Your task to perform on an android device: change the clock style Image 0: 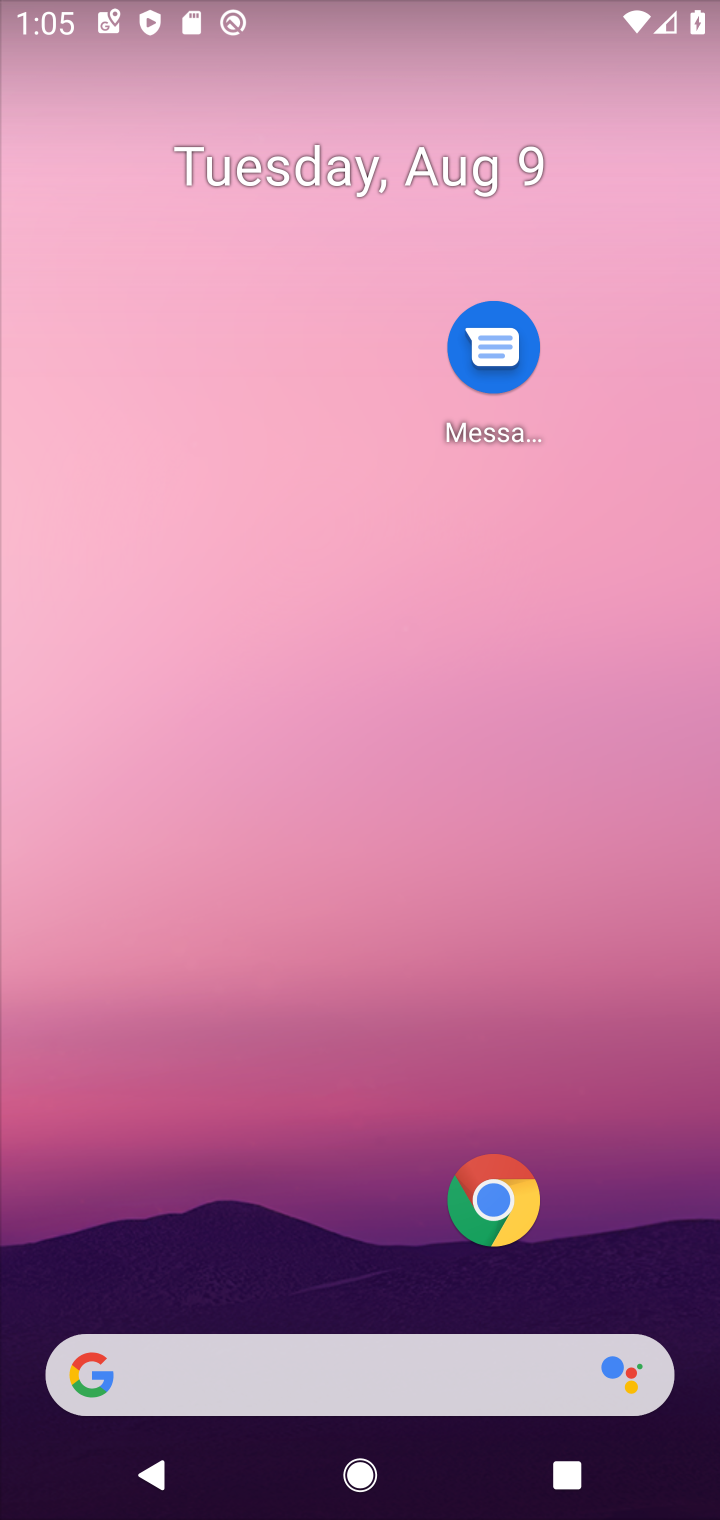
Step 0: drag from (255, 1225) to (315, 79)
Your task to perform on an android device: change the clock style Image 1: 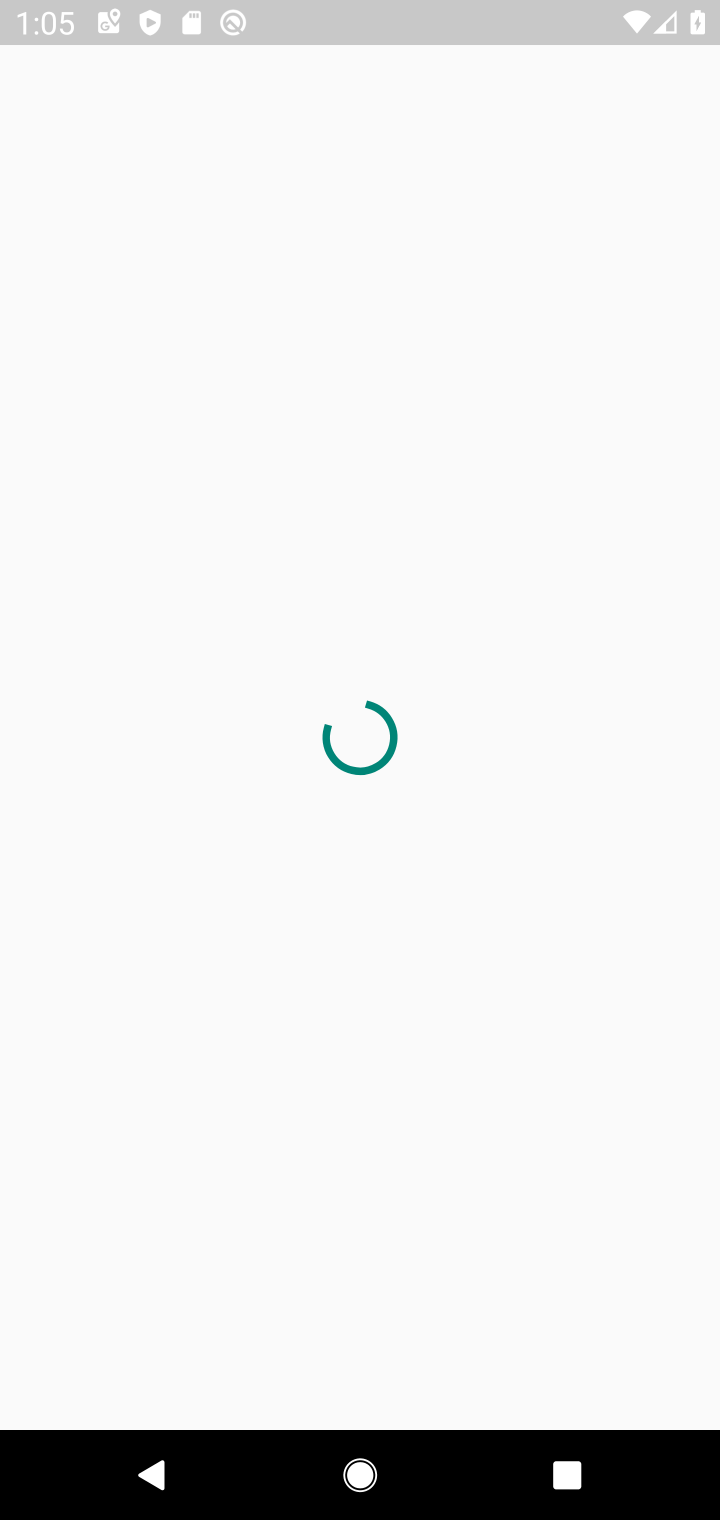
Step 1: press back button
Your task to perform on an android device: change the clock style Image 2: 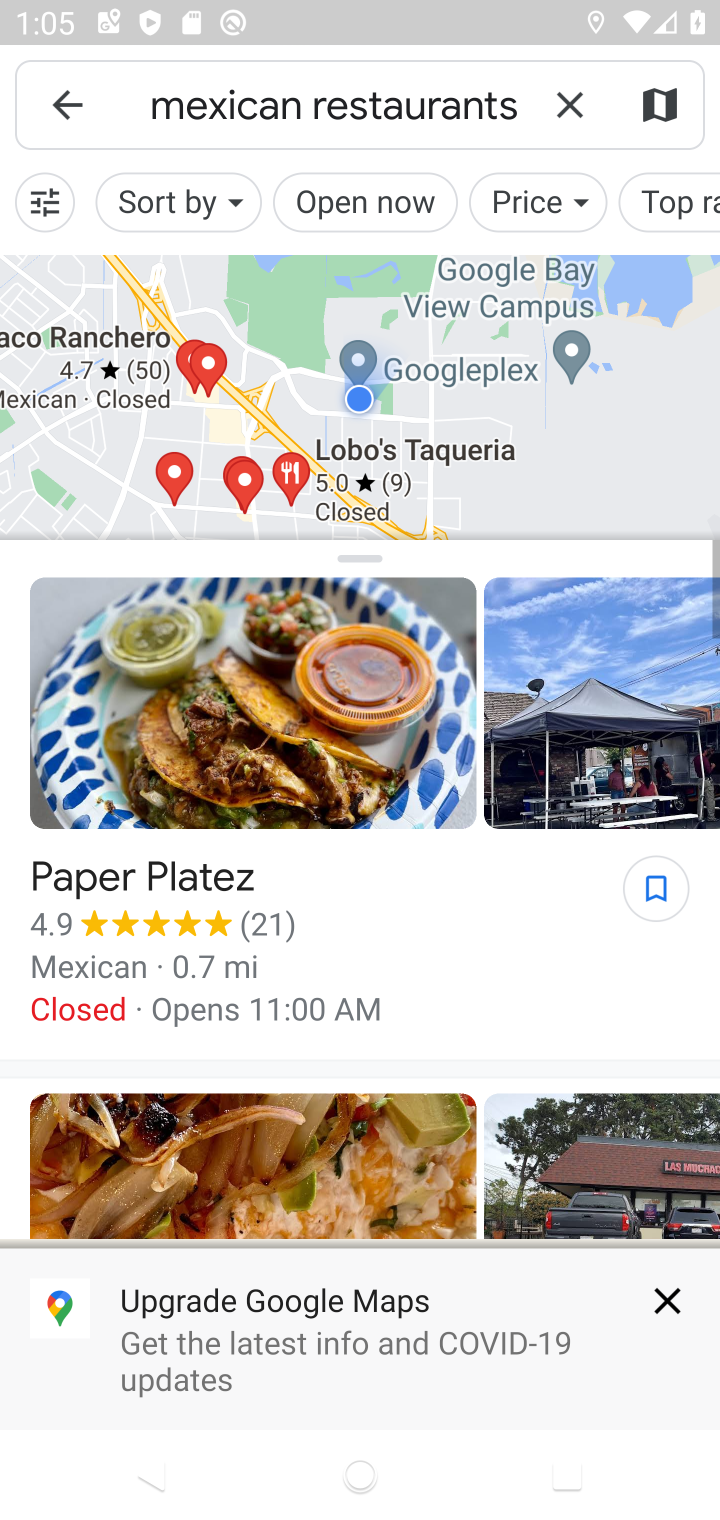
Step 2: press back button
Your task to perform on an android device: change the clock style Image 3: 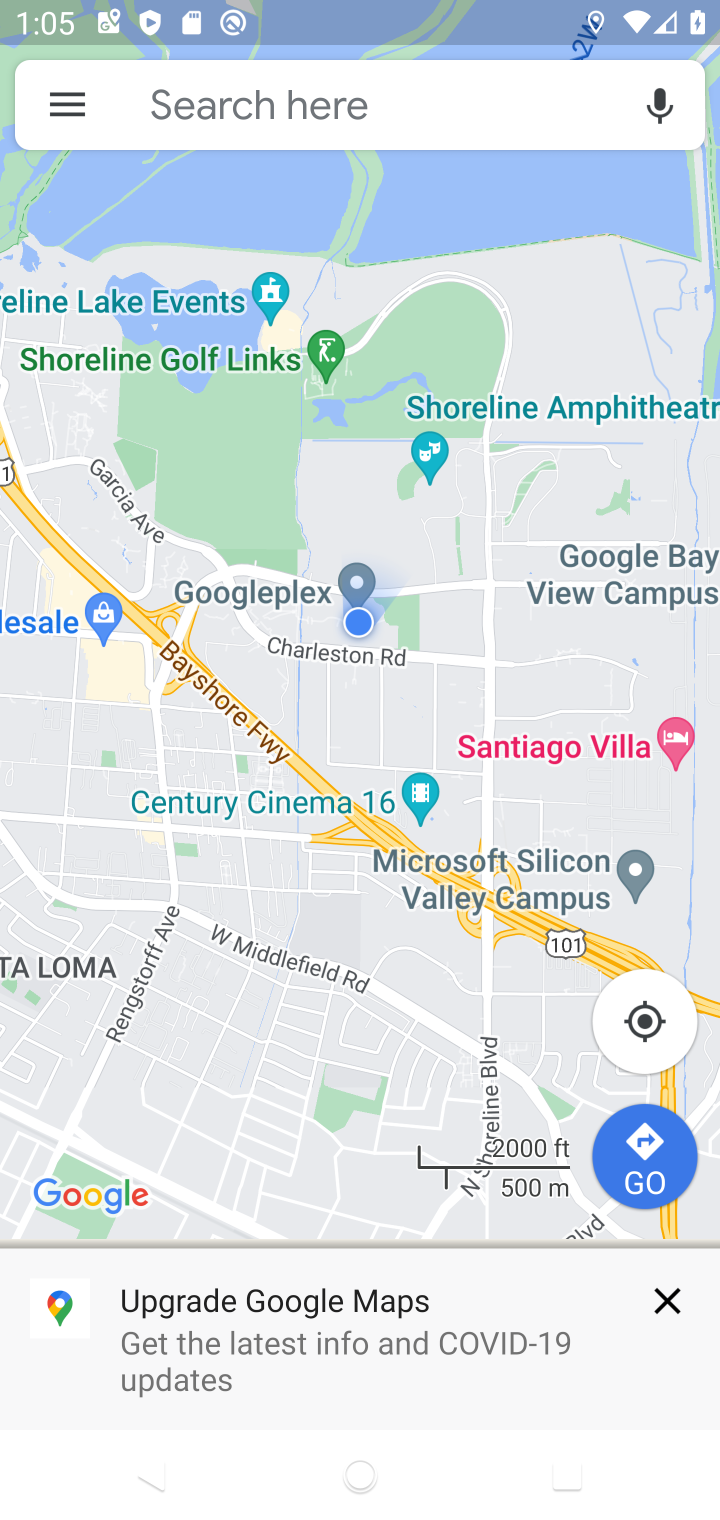
Step 3: press back button
Your task to perform on an android device: change the clock style Image 4: 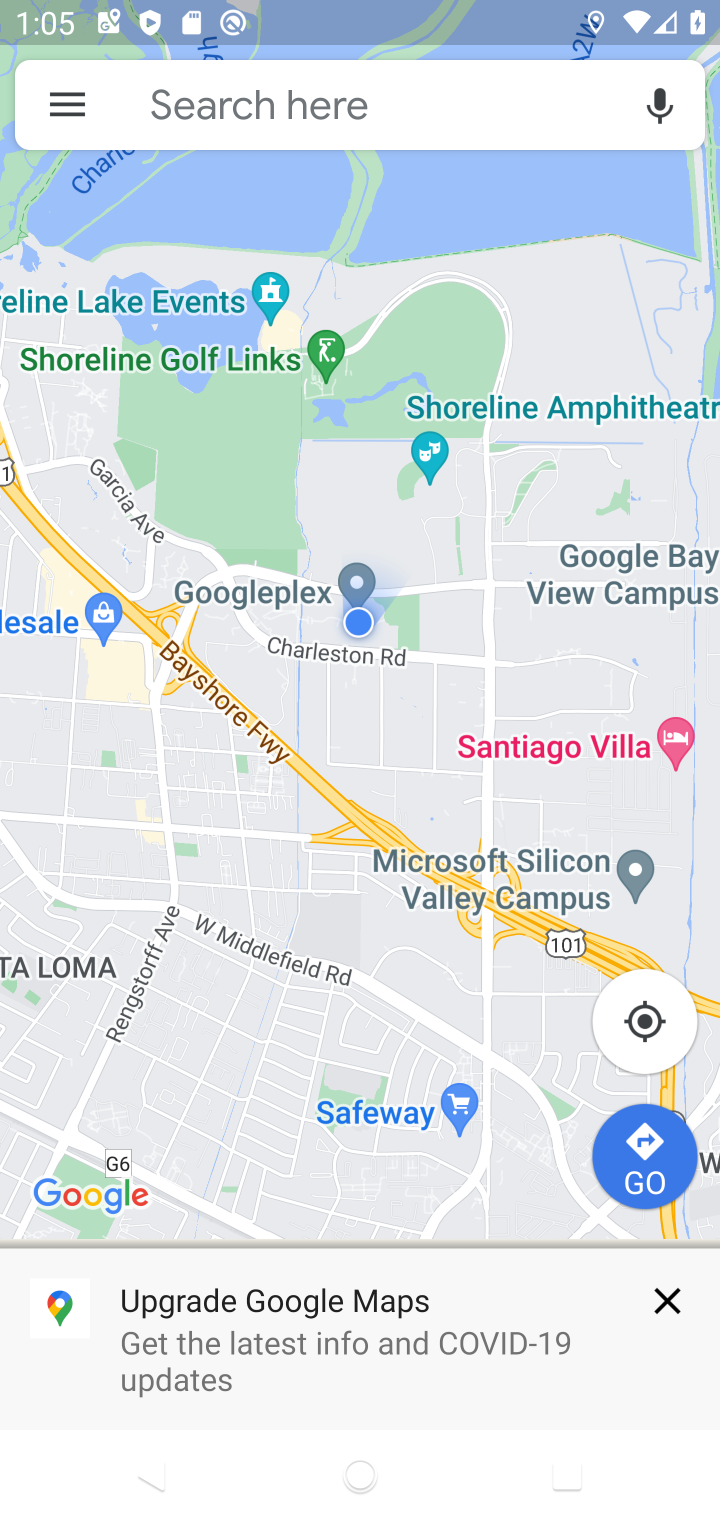
Step 4: press back button
Your task to perform on an android device: change the clock style Image 5: 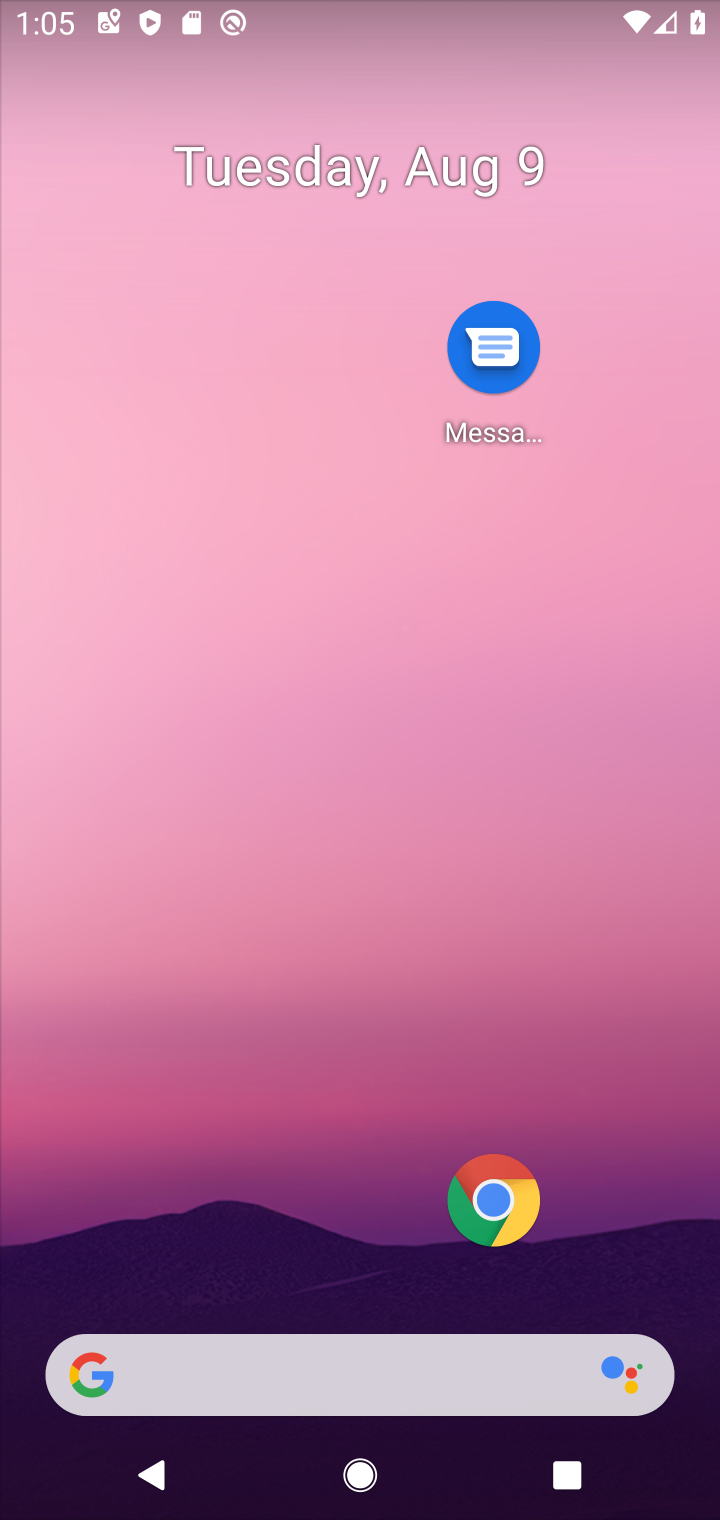
Step 5: click (380, 773)
Your task to perform on an android device: change the clock style Image 6: 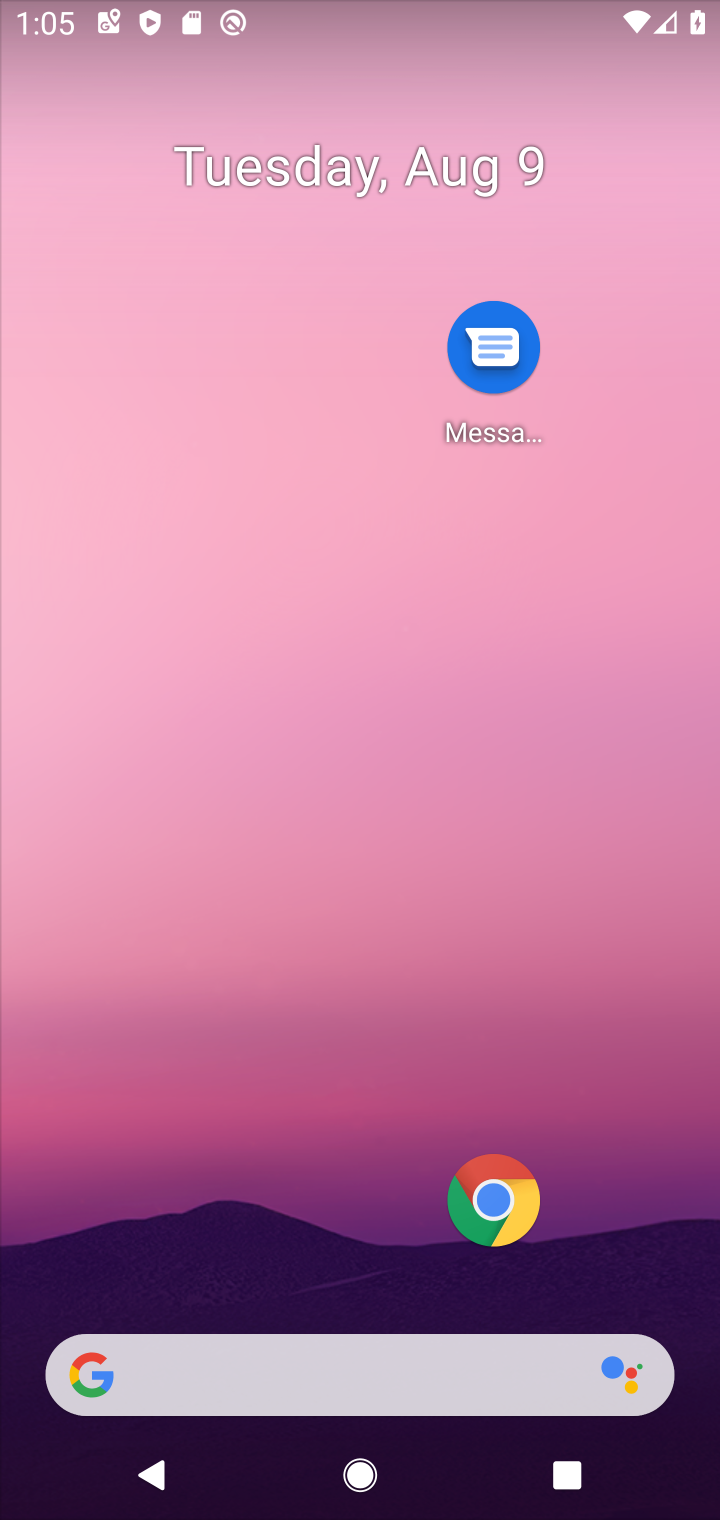
Step 6: drag from (286, 1192) to (275, 198)
Your task to perform on an android device: change the clock style Image 7: 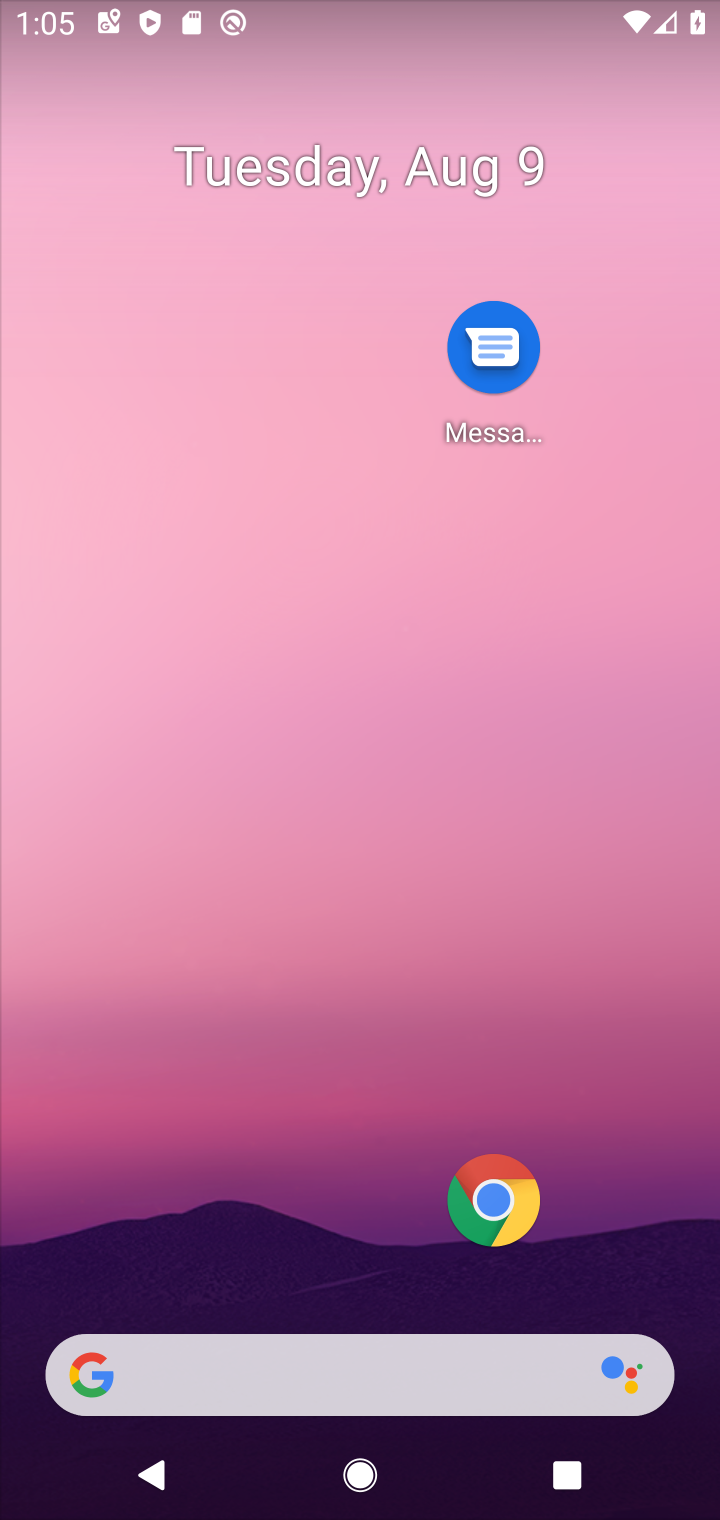
Step 7: drag from (283, 1211) to (394, 112)
Your task to perform on an android device: change the clock style Image 8: 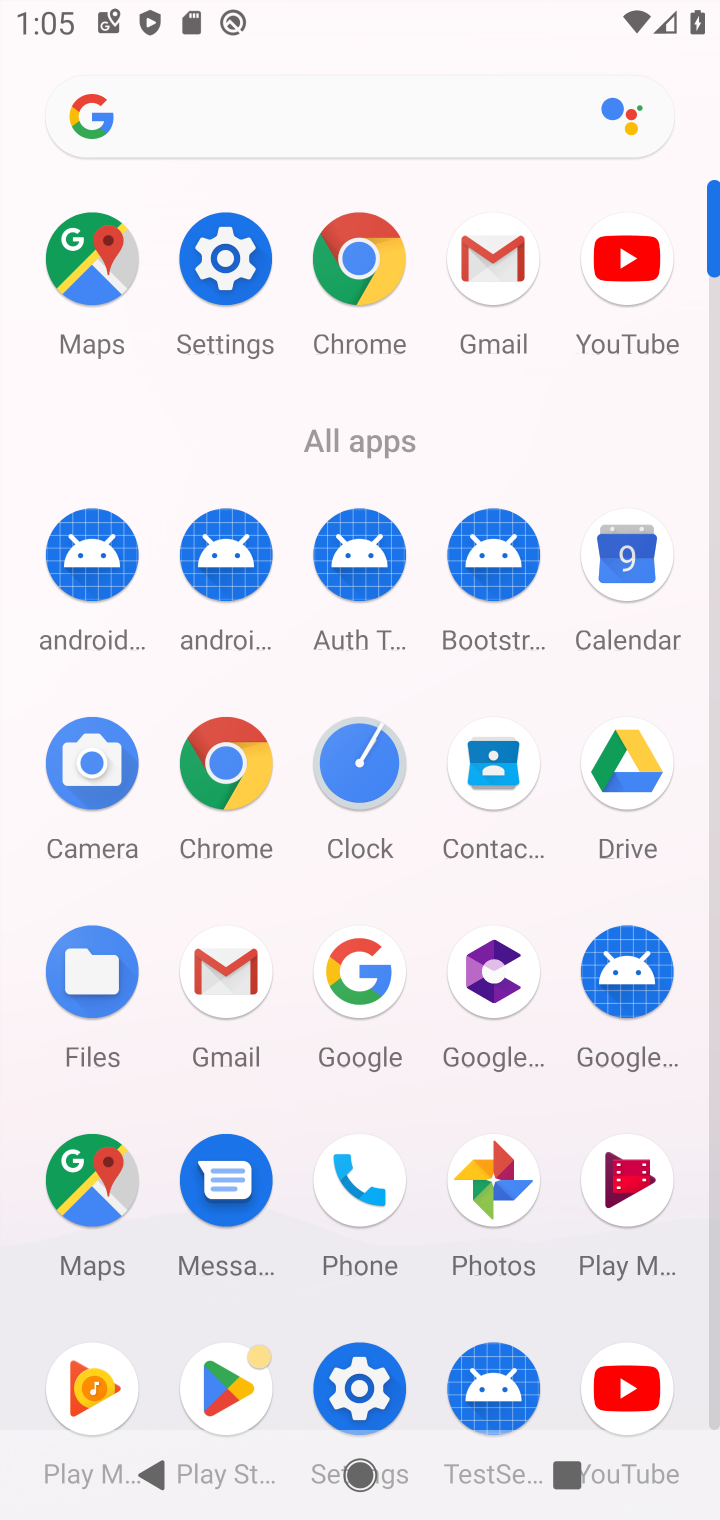
Step 8: click (350, 760)
Your task to perform on an android device: change the clock style Image 9: 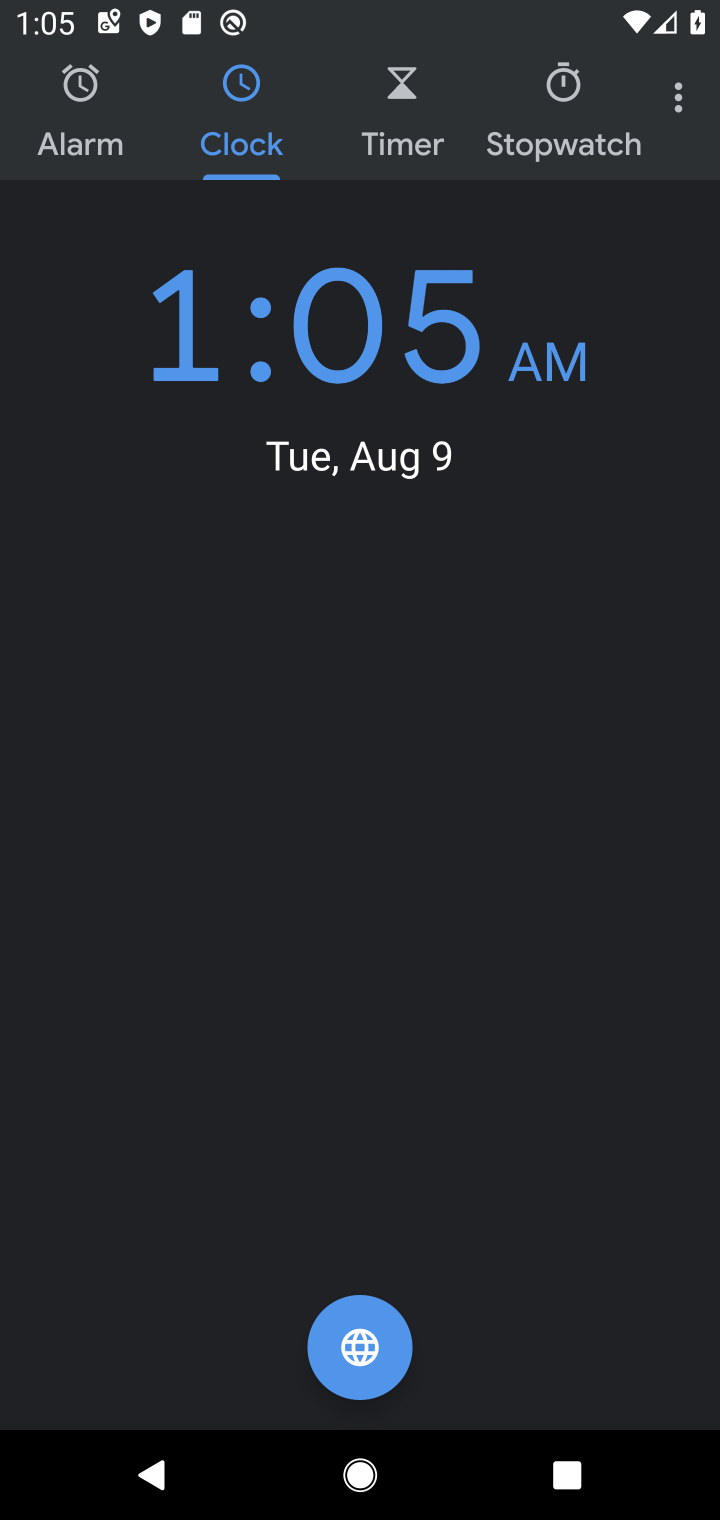
Step 9: click (676, 95)
Your task to perform on an android device: change the clock style Image 10: 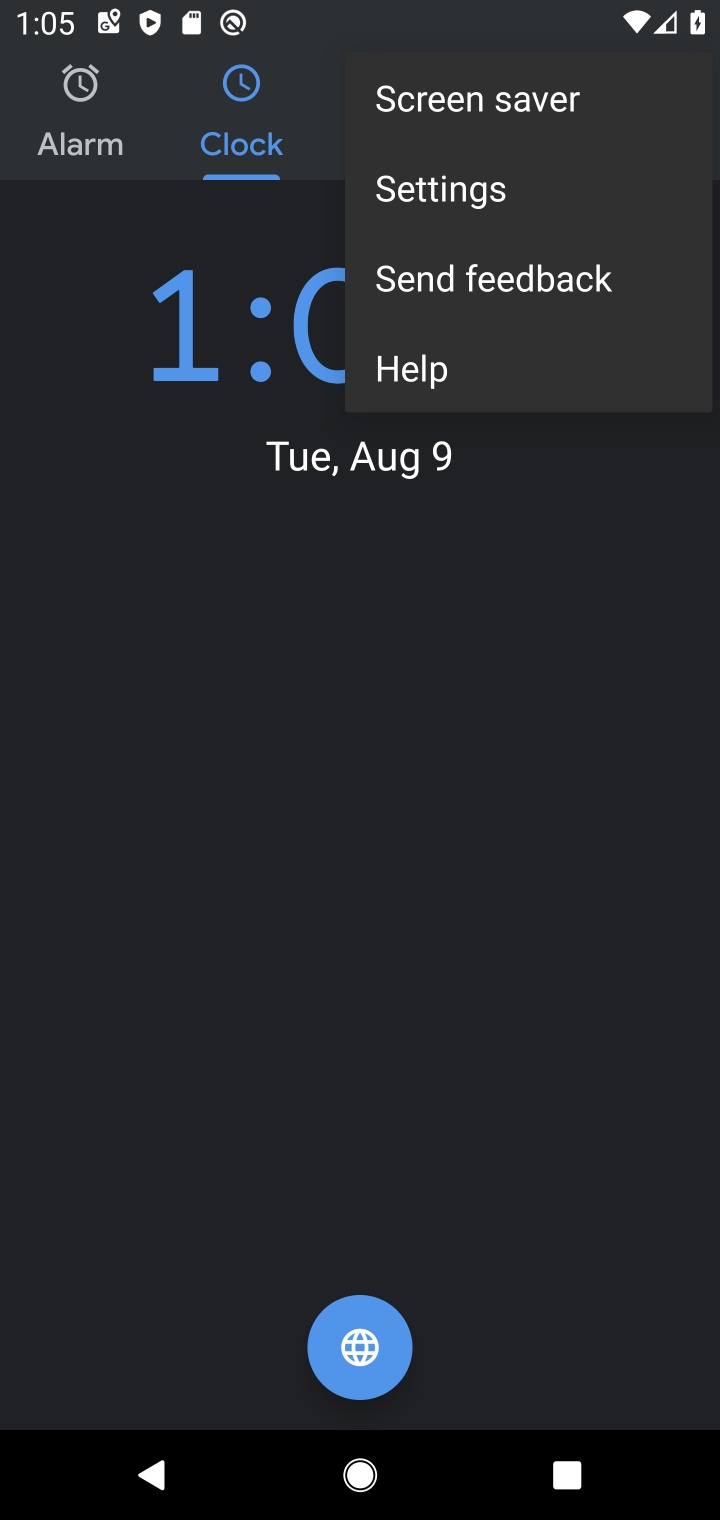
Step 10: click (566, 183)
Your task to perform on an android device: change the clock style Image 11: 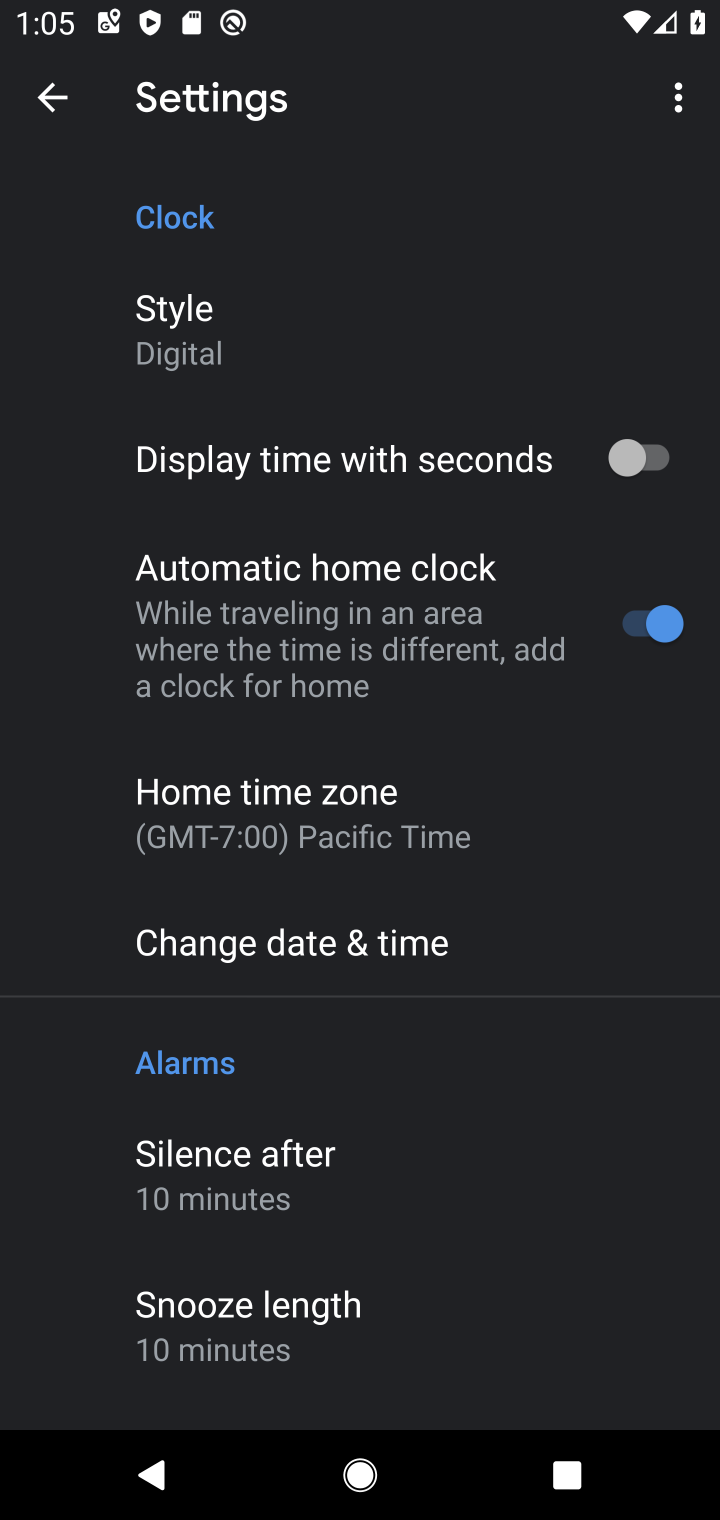
Step 11: click (171, 333)
Your task to perform on an android device: change the clock style Image 12: 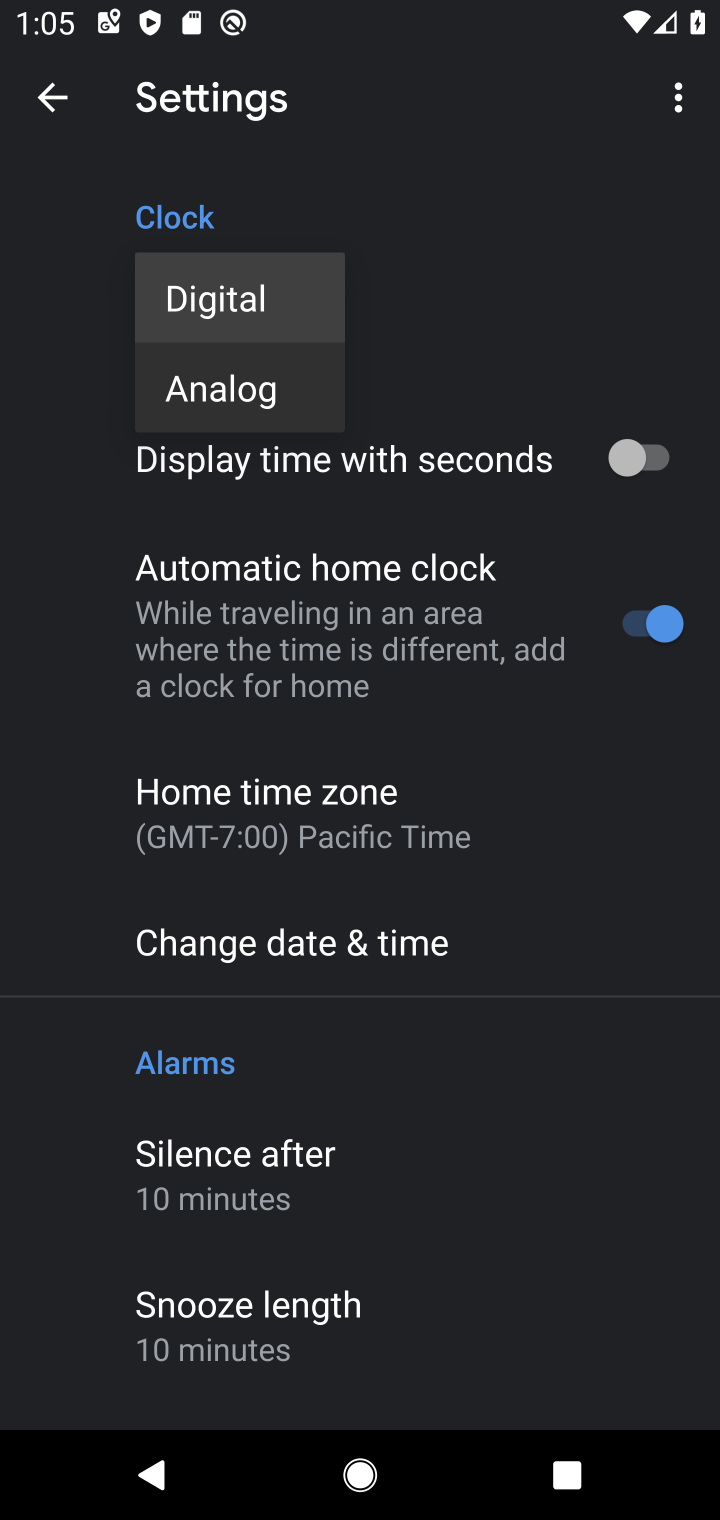
Step 12: click (219, 388)
Your task to perform on an android device: change the clock style Image 13: 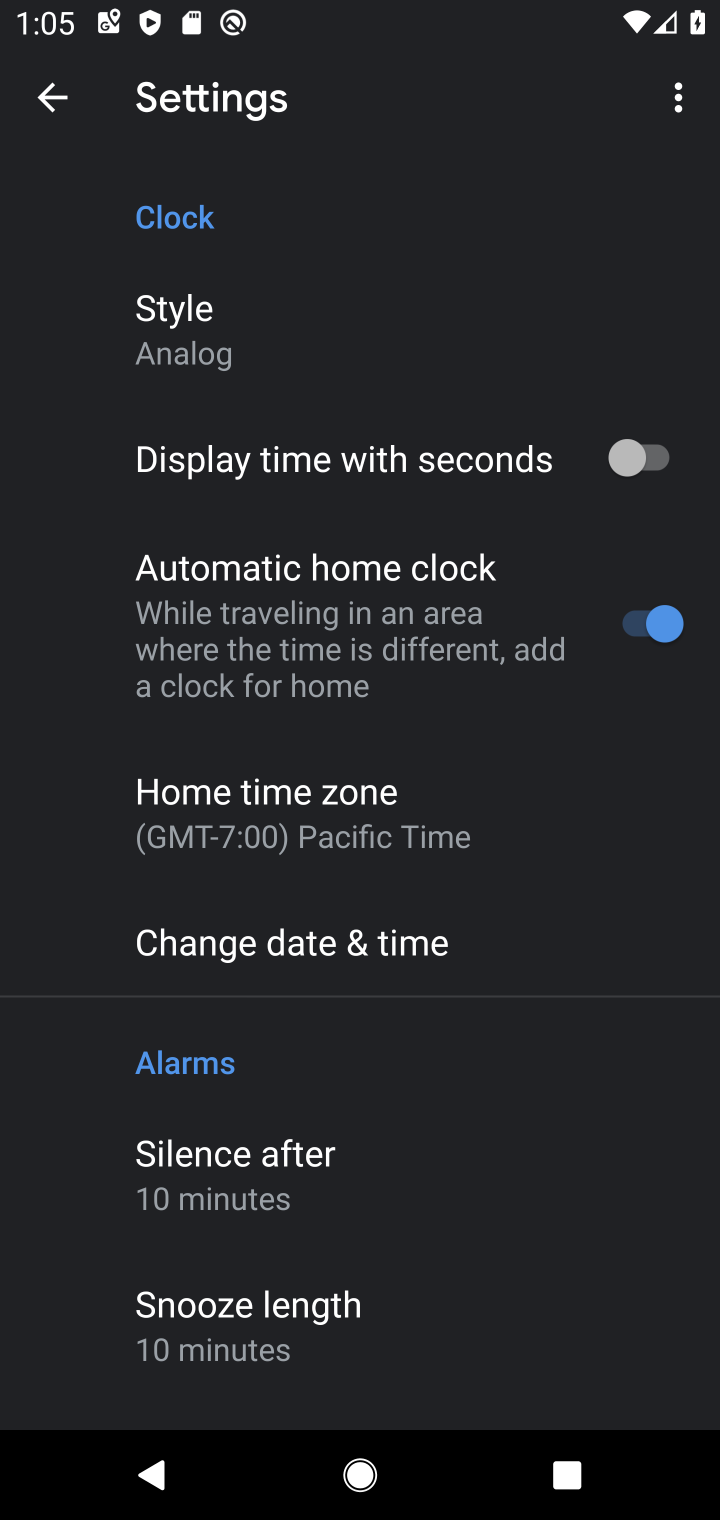
Step 13: task complete